Your task to perform on an android device: Go to CNN.com Image 0: 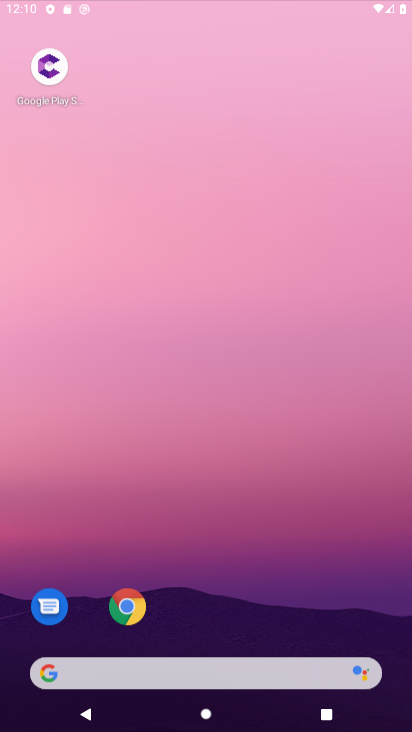
Step 0: click (327, 51)
Your task to perform on an android device: Go to CNN.com Image 1: 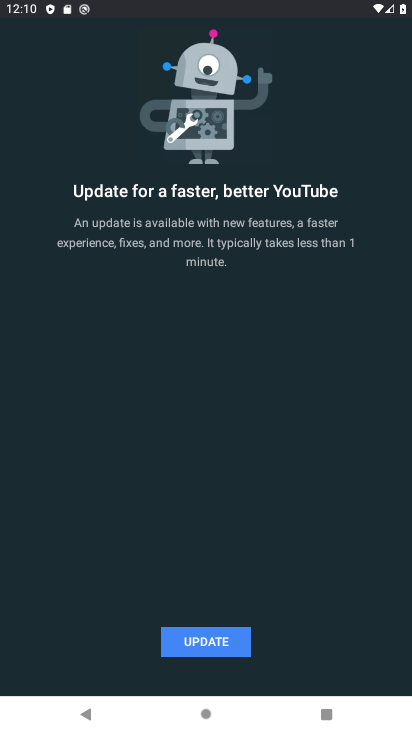
Step 1: press home button
Your task to perform on an android device: Go to CNN.com Image 2: 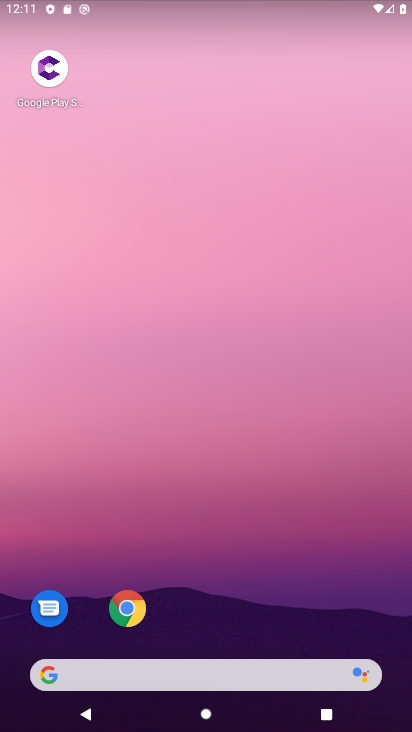
Step 2: click (169, 669)
Your task to perform on an android device: Go to CNN.com Image 3: 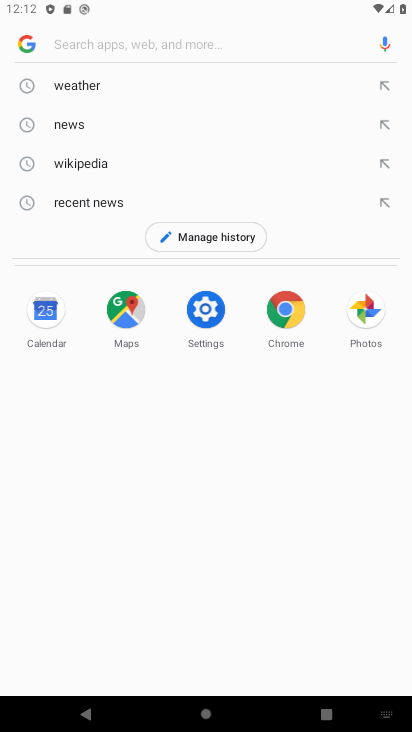
Step 3: type "cnn.com"
Your task to perform on an android device: Go to CNN.com Image 4: 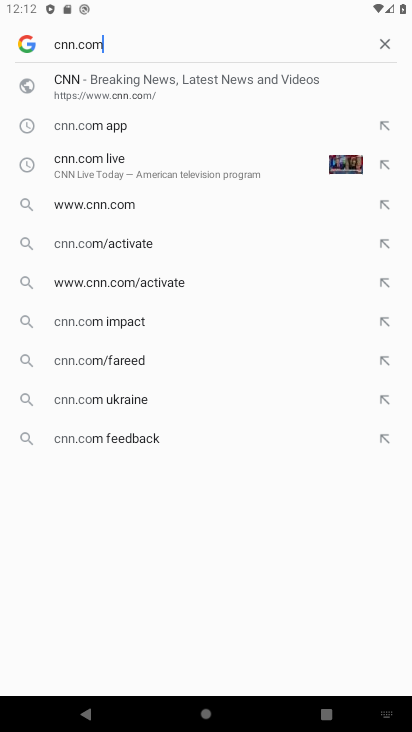
Step 4: click (122, 86)
Your task to perform on an android device: Go to CNN.com Image 5: 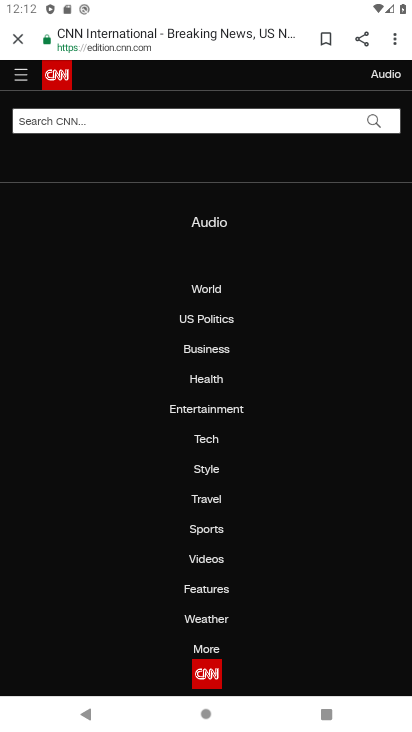
Step 5: task complete